Your task to perform on an android device: turn off location Image 0: 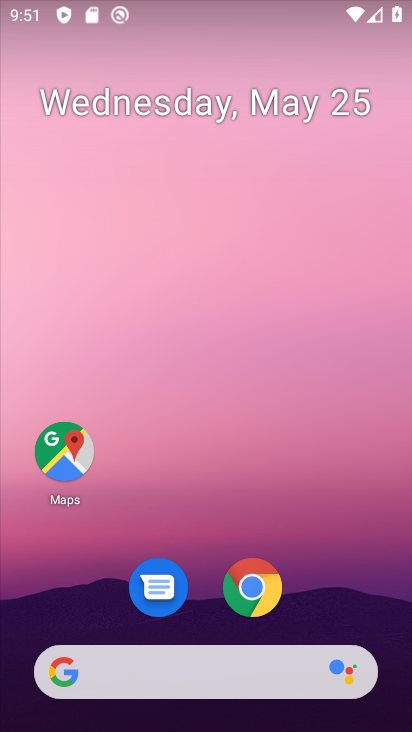
Step 0: drag from (195, 613) to (121, 0)
Your task to perform on an android device: turn off location Image 1: 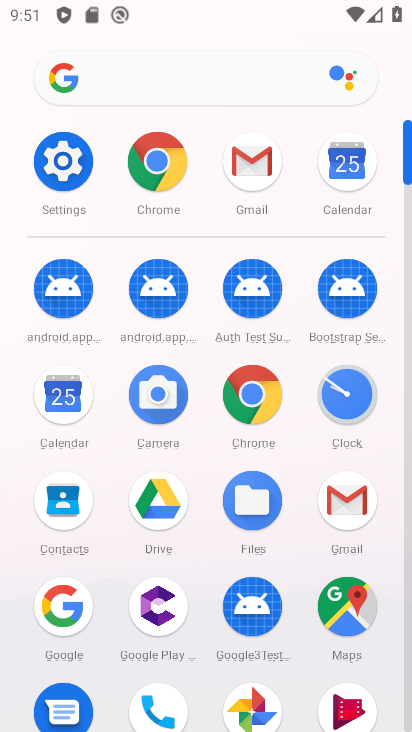
Step 1: click (51, 167)
Your task to perform on an android device: turn off location Image 2: 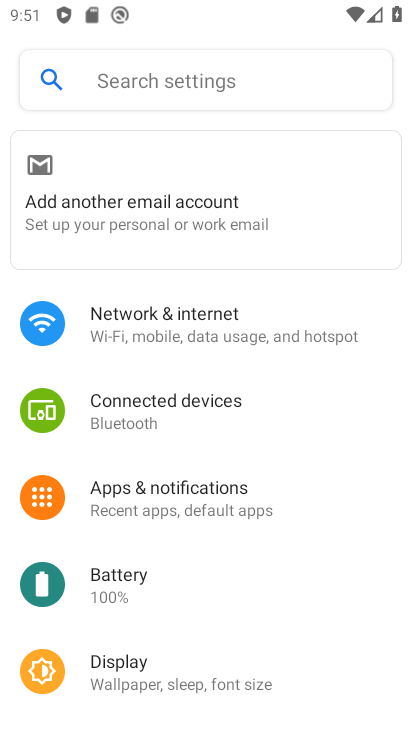
Step 2: drag from (212, 564) to (250, 239)
Your task to perform on an android device: turn off location Image 3: 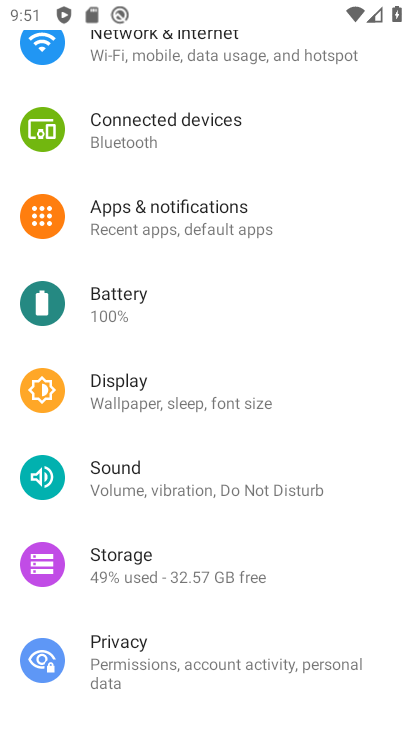
Step 3: drag from (215, 588) to (267, 211)
Your task to perform on an android device: turn off location Image 4: 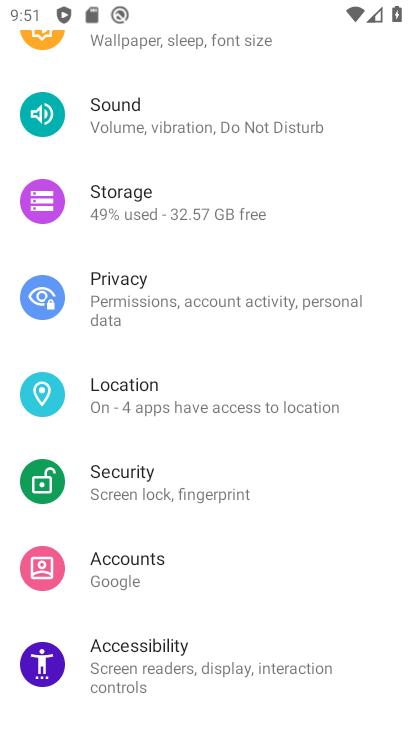
Step 4: click (194, 402)
Your task to perform on an android device: turn off location Image 5: 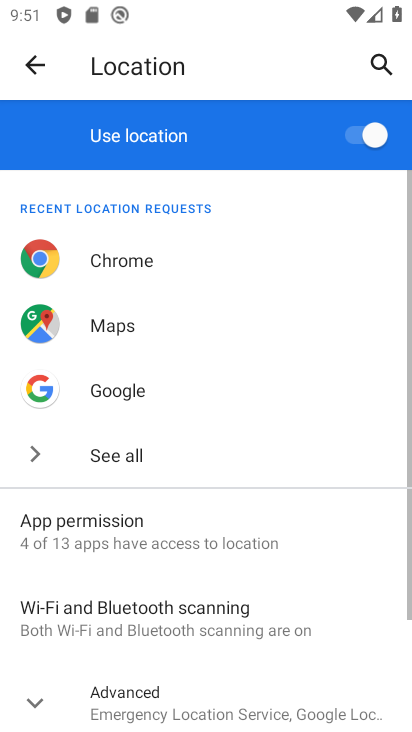
Step 5: click (344, 134)
Your task to perform on an android device: turn off location Image 6: 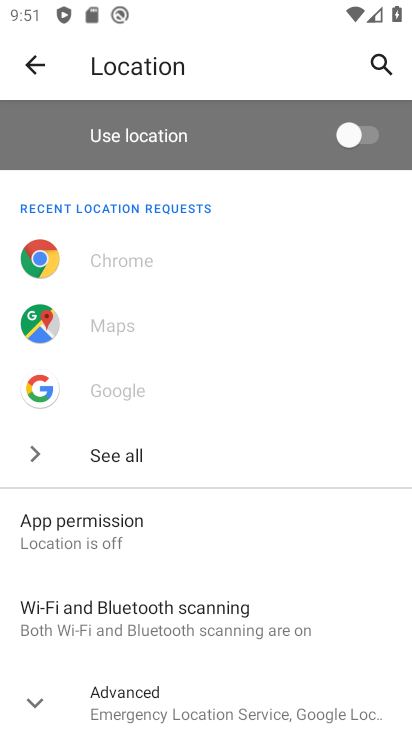
Step 6: task complete